Your task to perform on an android device: add a contact in the contacts app Image 0: 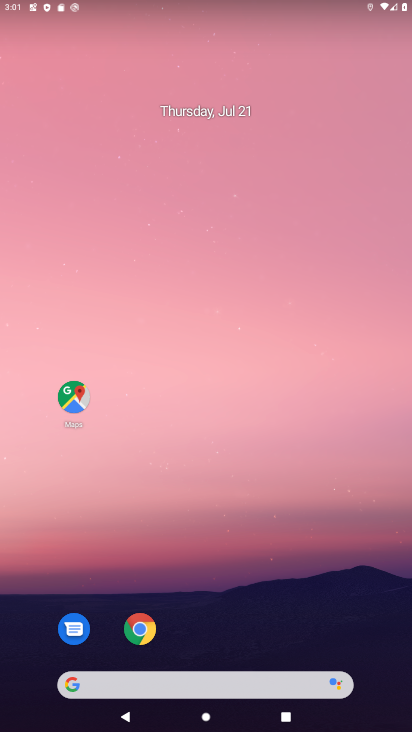
Step 0: drag from (209, 631) to (157, 7)
Your task to perform on an android device: add a contact in the contacts app Image 1: 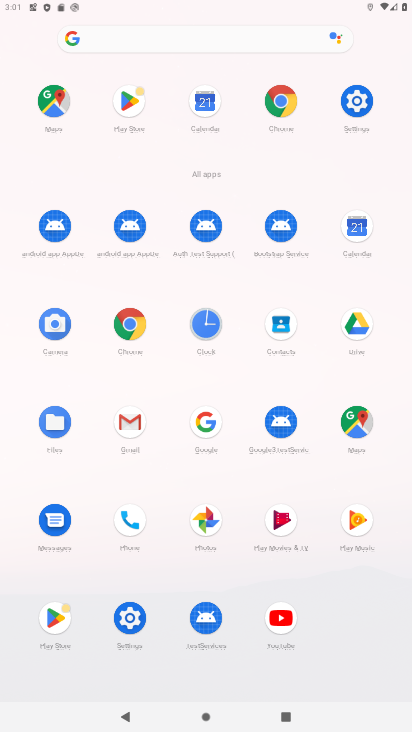
Step 1: click (292, 366)
Your task to perform on an android device: add a contact in the contacts app Image 2: 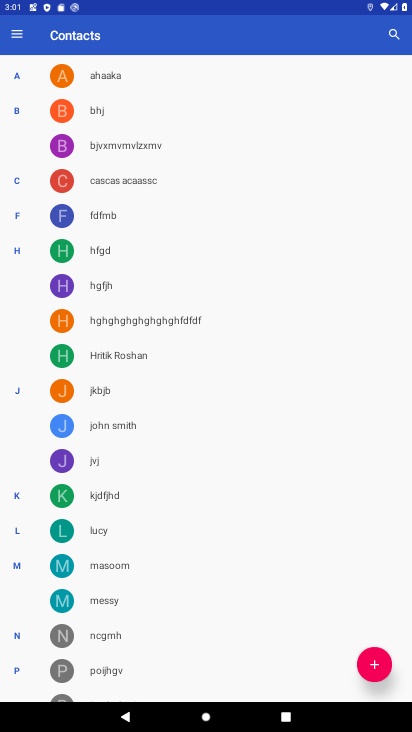
Step 2: click (379, 665)
Your task to perform on an android device: add a contact in the contacts app Image 3: 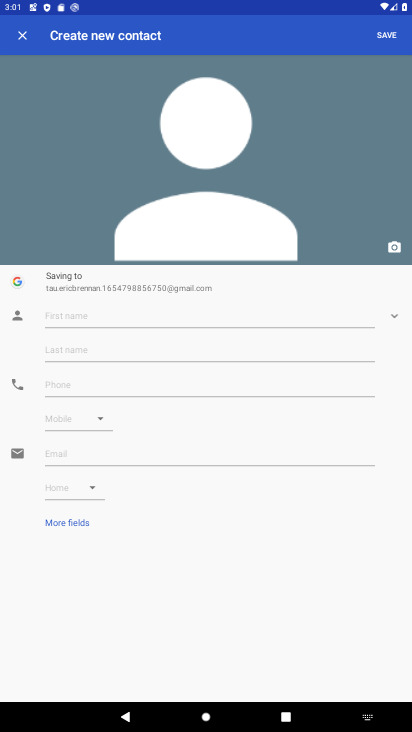
Step 3: type "8syudgihsc"
Your task to perform on an android device: add a contact in the contacts app Image 4: 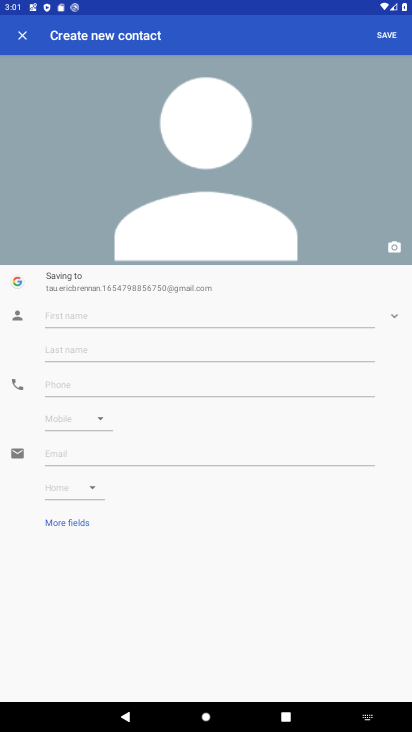
Step 4: click (109, 316)
Your task to perform on an android device: add a contact in the contacts app Image 5: 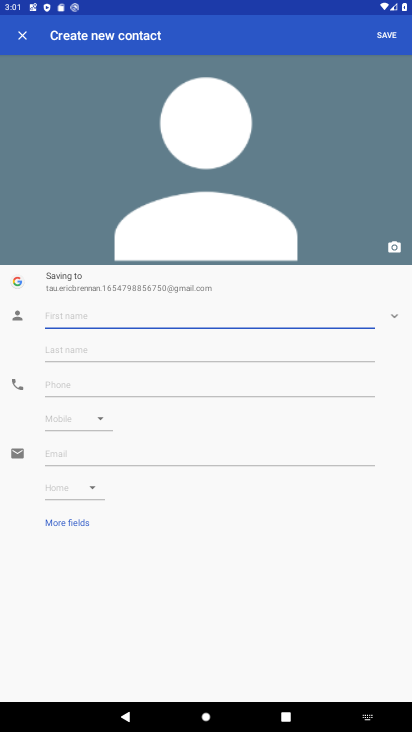
Step 5: type "scvc"
Your task to perform on an android device: add a contact in the contacts app Image 6: 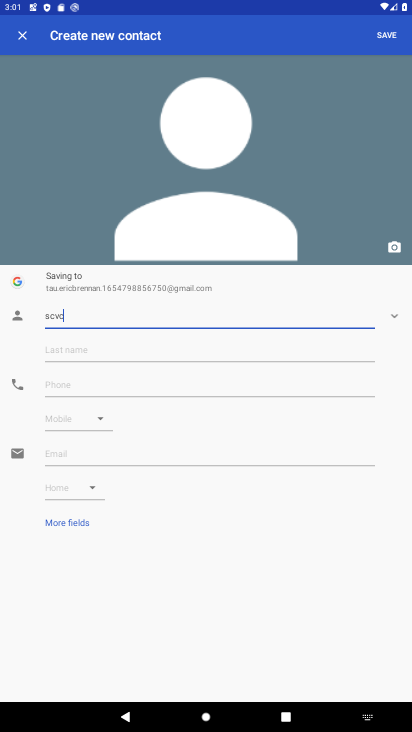
Step 6: type ""
Your task to perform on an android device: add a contact in the contacts app Image 7: 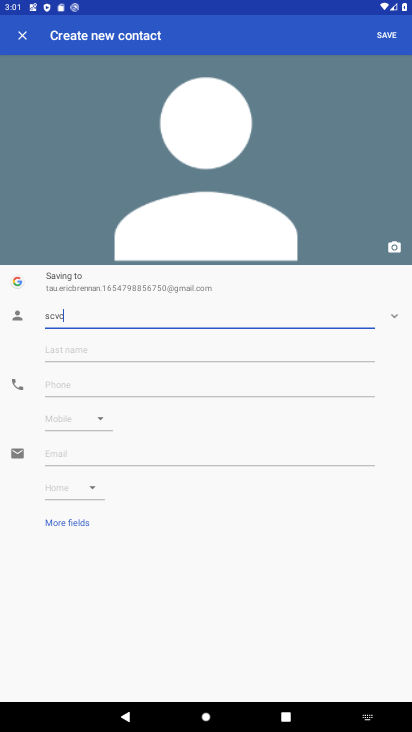
Step 7: click (389, 37)
Your task to perform on an android device: add a contact in the contacts app Image 8: 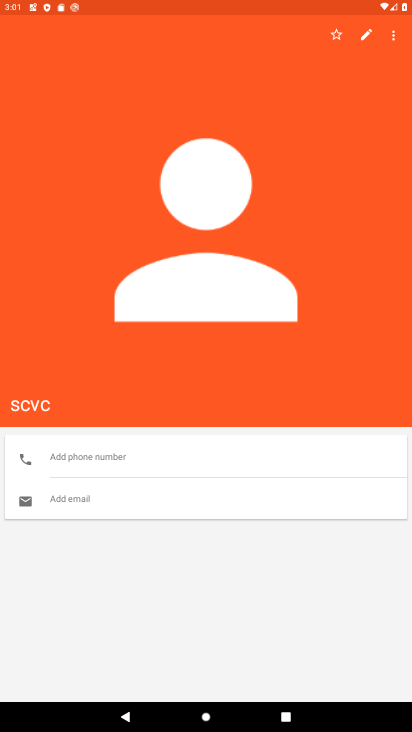
Step 8: task complete